Your task to perform on an android device: Go to location settings Image 0: 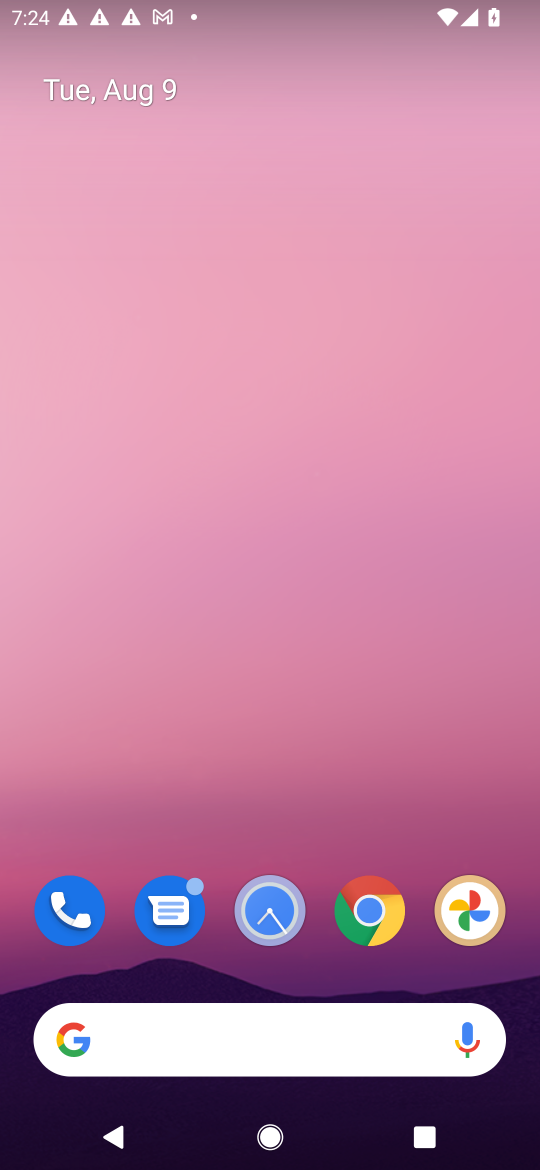
Step 0: drag from (242, 827) to (306, 232)
Your task to perform on an android device: Go to location settings Image 1: 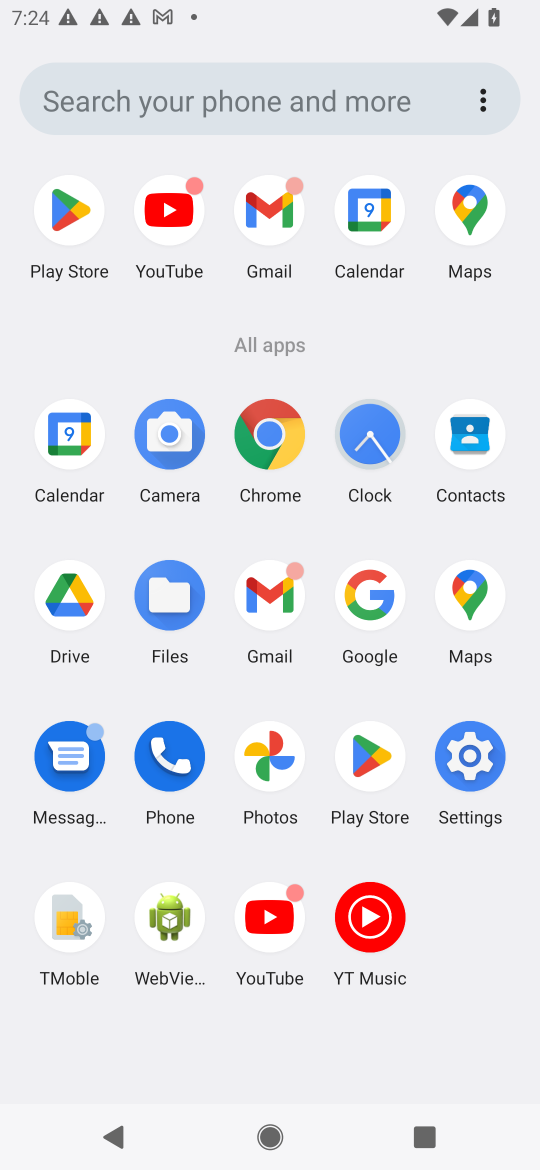
Step 1: click (443, 793)
Your task to perform on an android device: Go to location settings Image 2: 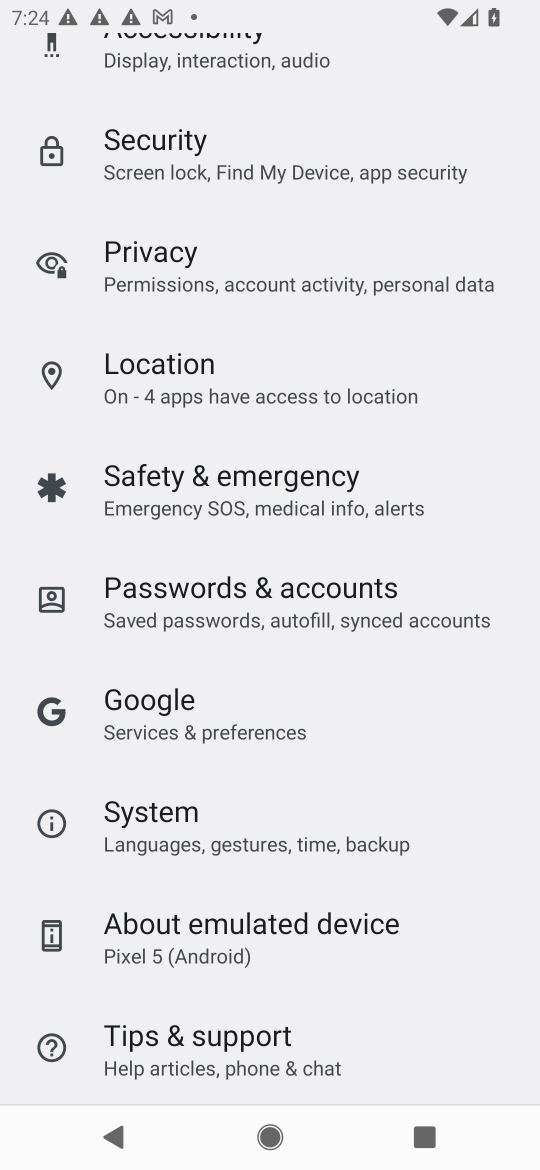
Step 2: click (174, 360)
Your task to perform on an android device: Go to location settings Image 3: 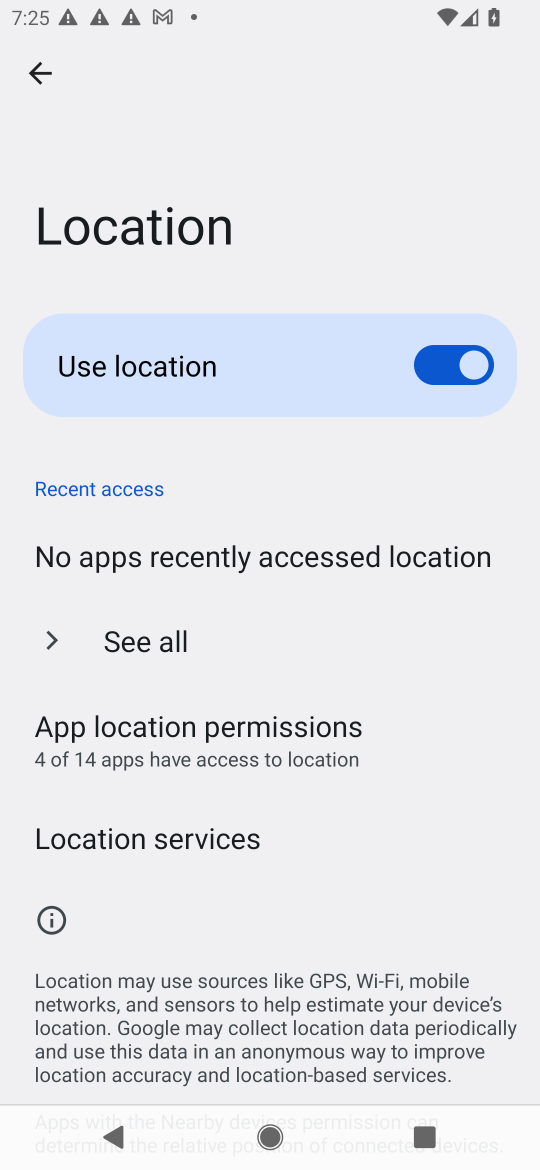
Step 3: task complete